Your task to perform on an android device: Go to Google Image 0: 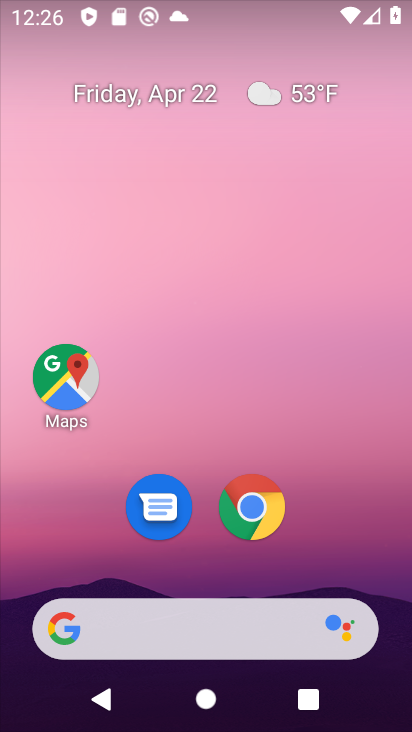
Step 0: drag from (324, 467) to (215, 55)
Your task to perform on an android device: Go to Google Image 1: 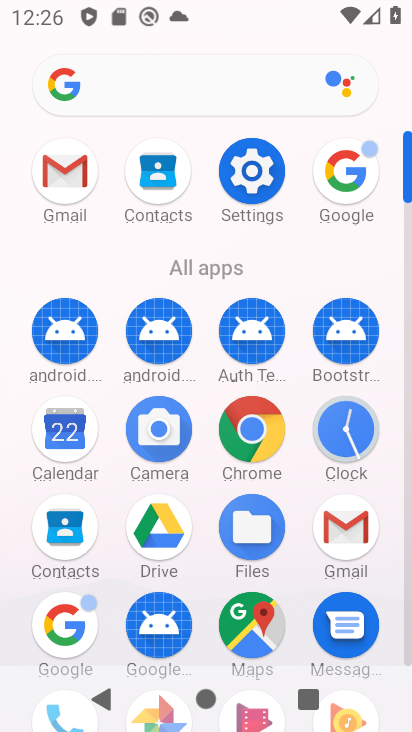
Step 1: click (74, 623)
Your task to perform on an android device: Go to Google Image 2: 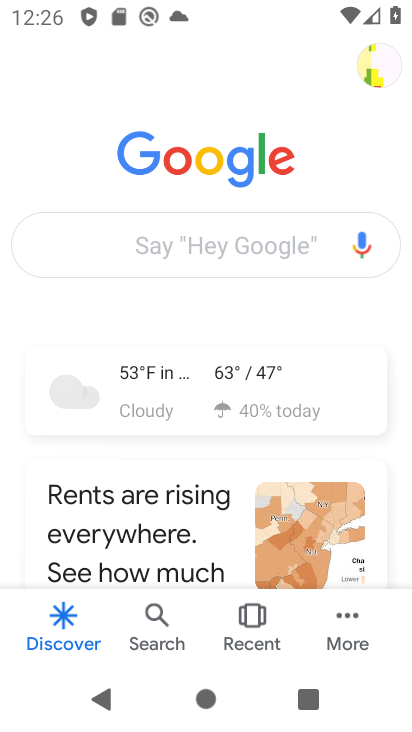
Step 2: task complete